Your task to perform on an android device: clear all cookies in the chrome app Image 0: 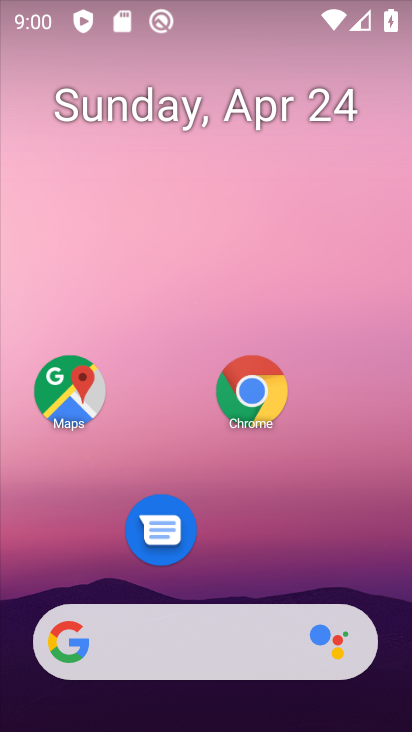
Step 0: click (265, 386)
Your task to perform on an android device: clear all cookies in the chrome app Image 1: 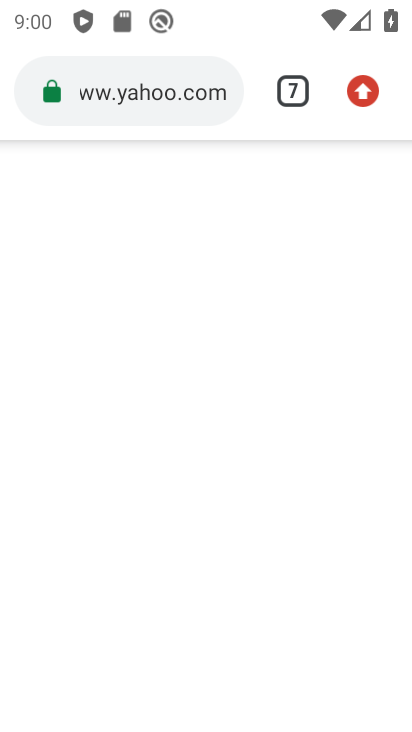
Step 1: click (358, 87)
Your task to perform on an android device: clear all cookies in the chrome app Image 2: 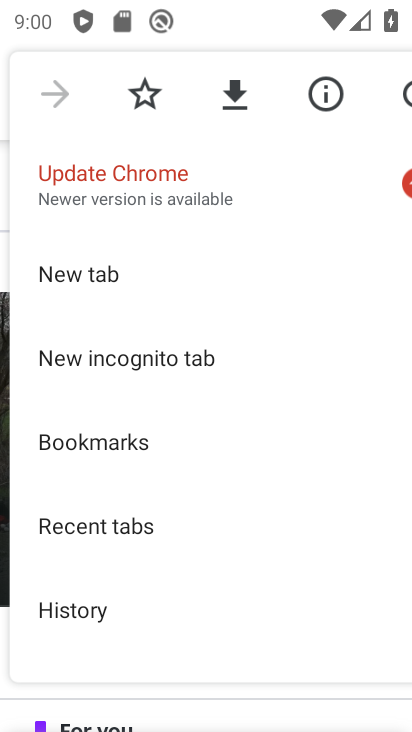
Step 2: drag from (97, 582) to (171, 250)
Your task to perform on an android device: clear all cookies in the chrome app Image 3: 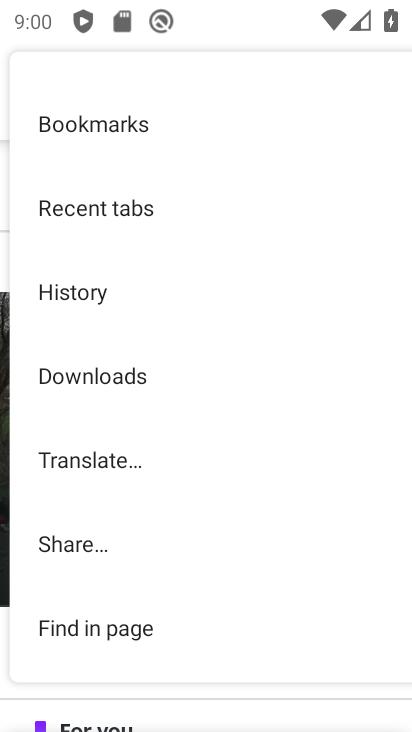
Step 3: drag from (116, 630) to (192, 264)
Your task to perform on an android device: clear all cookies in the chrome app Image 4: 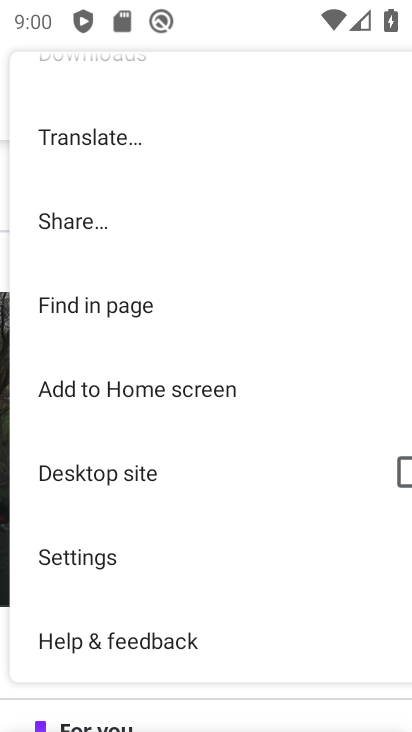
Step 4: click (133, 542)
Your task to perform on an android device: clear all cookies in the chrome app Image 5: 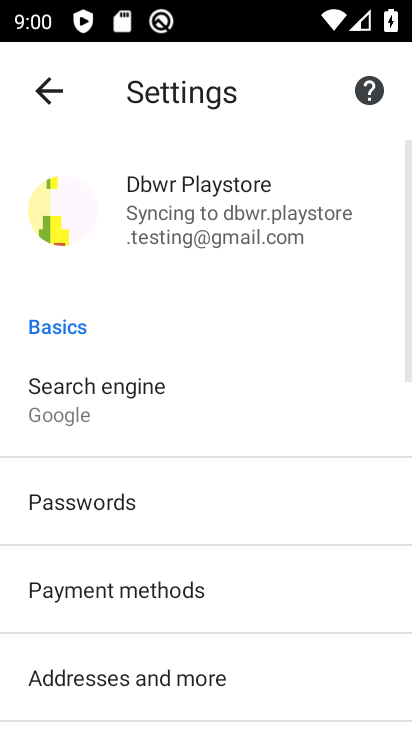
Step 5: drag from (133, 542) to (210, 150)
Your task to perform on an android device: clear all cookies in the chrome app Image 6: 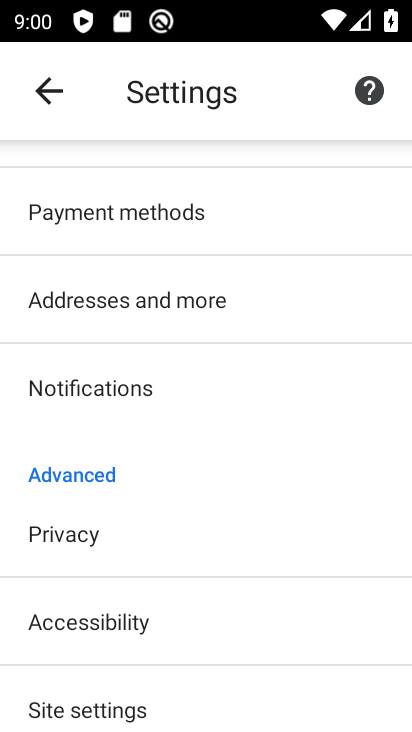
Step 6: drag from (106, 565) to (165, 187)
Your task to perform on an android device: clear all cookies in the chrome app Image 7: 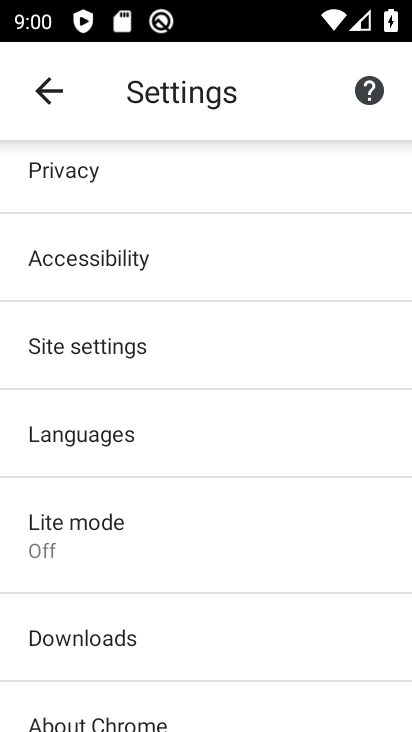
Step 7: click (77, 363)
Your task to perform on an android device: clear all cookies in the chrome app Image 8: 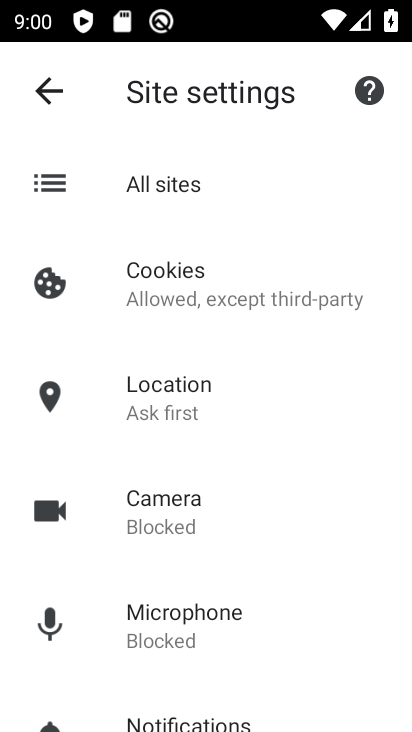
Step 8: click (180, 300)
Your task to perform on an android device: clear all cookies in the chrome app Image 9: 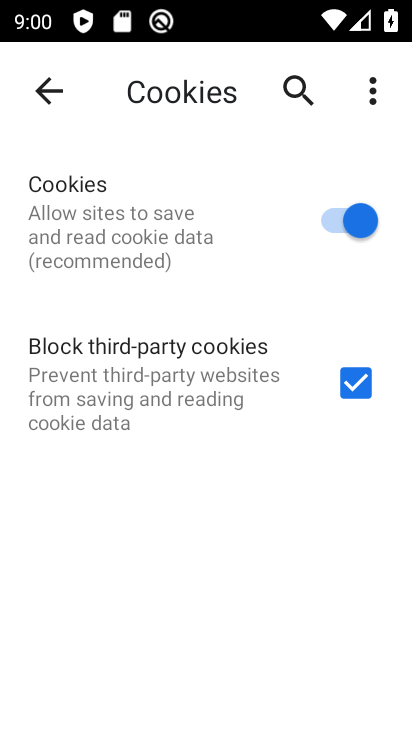
Step 9: task complete